Your task to perform on an android device: Open Google Image 0: 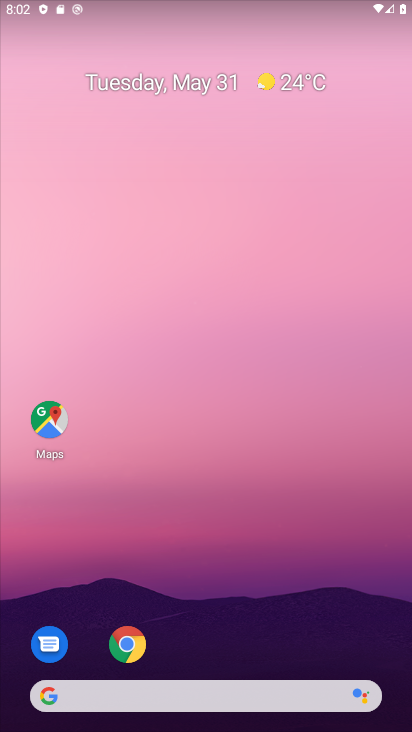
Step 0: drag from (278, 579) to (275, 259)
Your task to perform on an android device: Open Google Image 1: 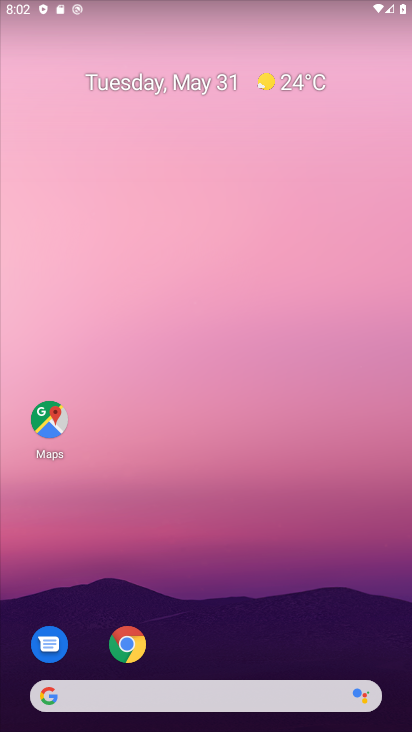
Step 1: drag from (270, 616) to (294, 322)
Your task to perform on an android device: Open Google Image 2: 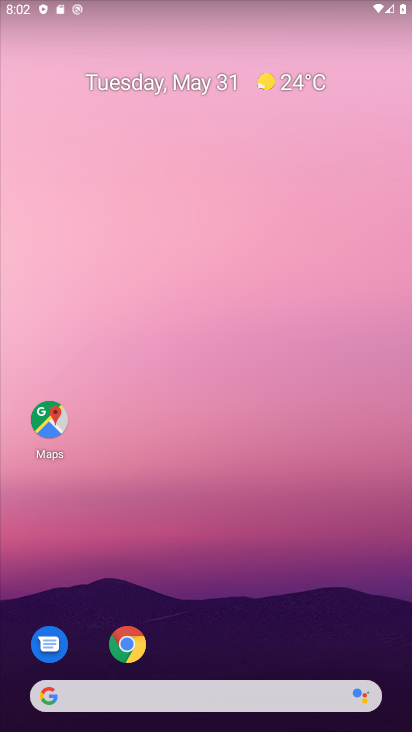
Step 2: drag from (250, 607) to (254, 198)
Your task to perform on an android device: Open Google Image 3: 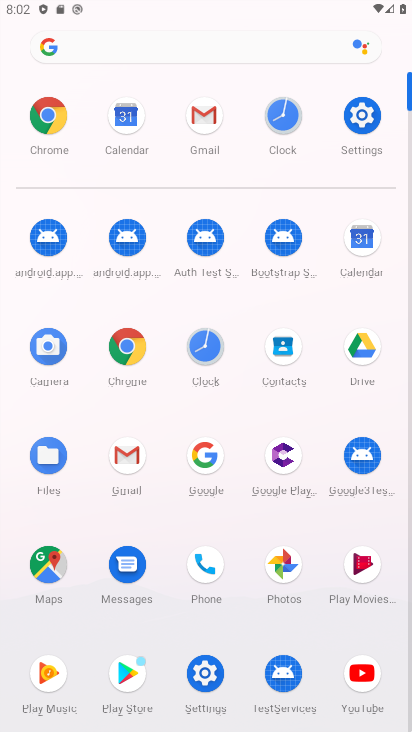
Step 3: click (207, 465)
Your task to perform on an android device: Open Google Image 4: 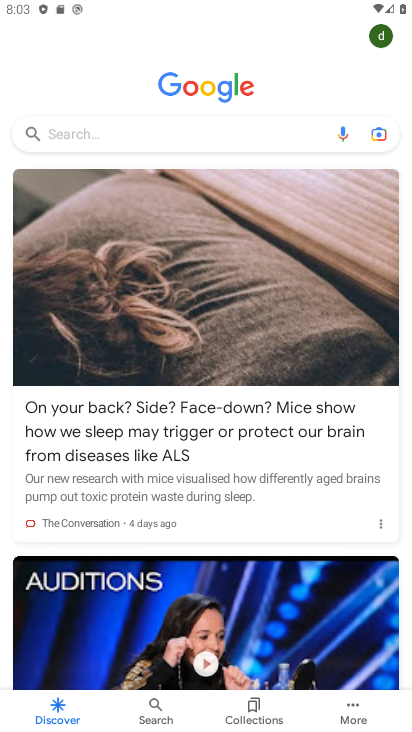
Step 4: task complete